Your task to perform on an android device: Go to settings Image 0: 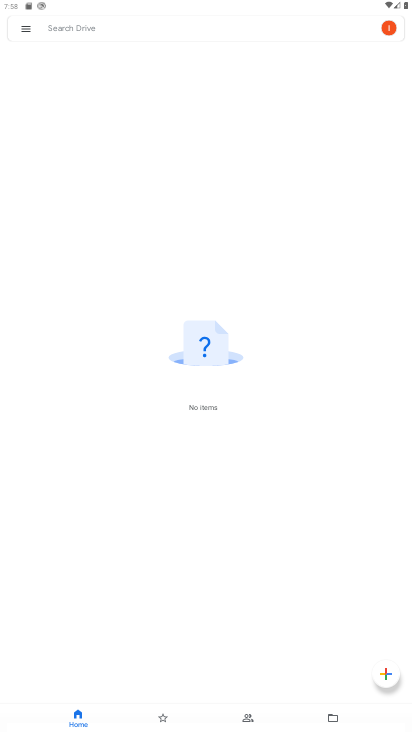
Step 0: press home button
Your task to perform on an android device: Go to settings Image 1: 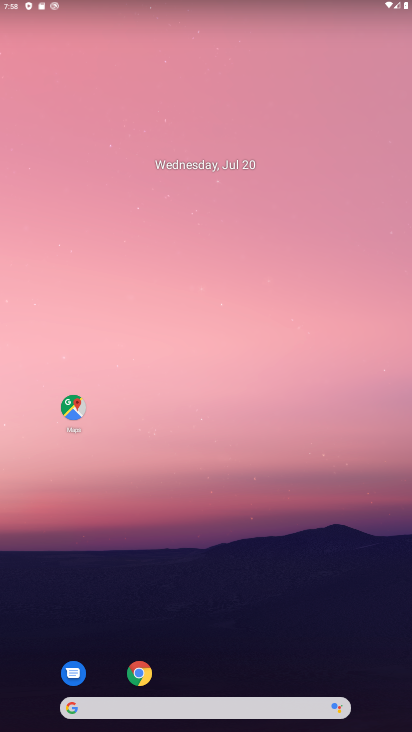
Step 1: drag from (181, 655) to (206, 170)
Your task to perform on an android device: Go to settings Image 2: 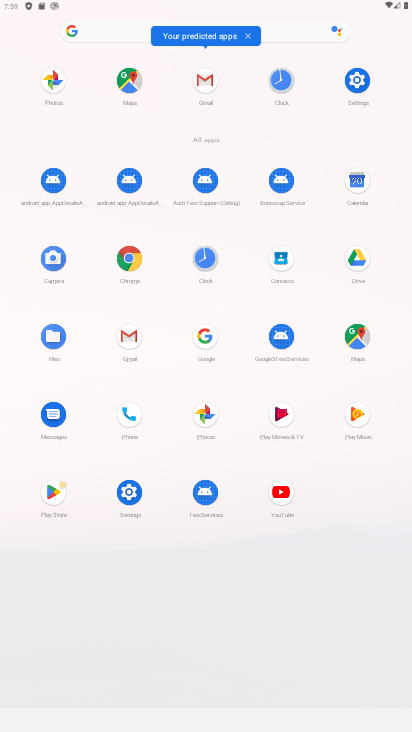
Step 2: click (121, 494)
Your task to perform on an android device: Go to settings Image 3: 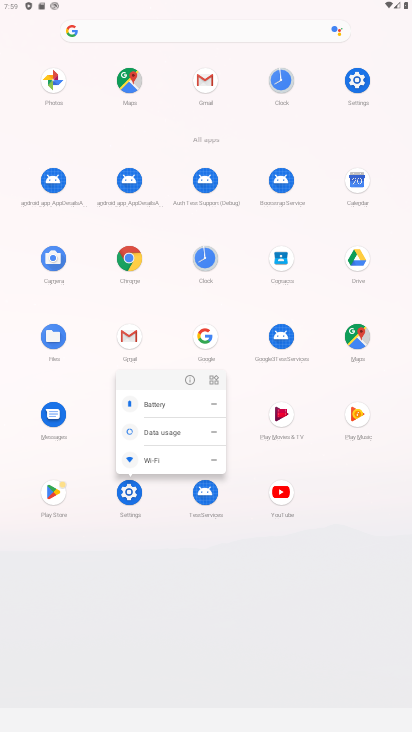
Step 3: click (187, 377)
Your task to perform on an android device: Go to settings Image 4: 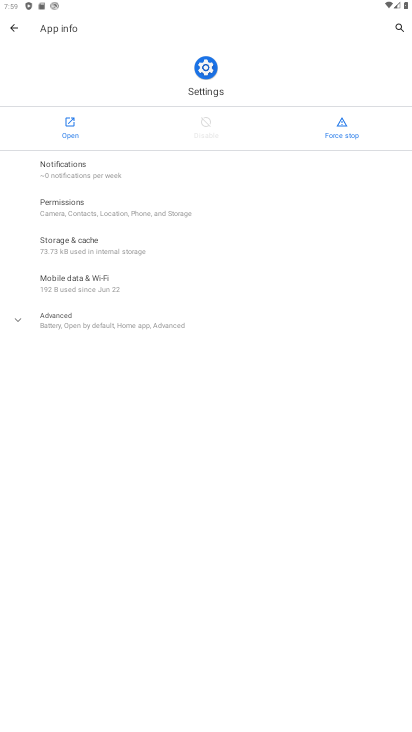
Step 4: click (74, 118)
Your task to perform on an android device: Go to settings Image 5: 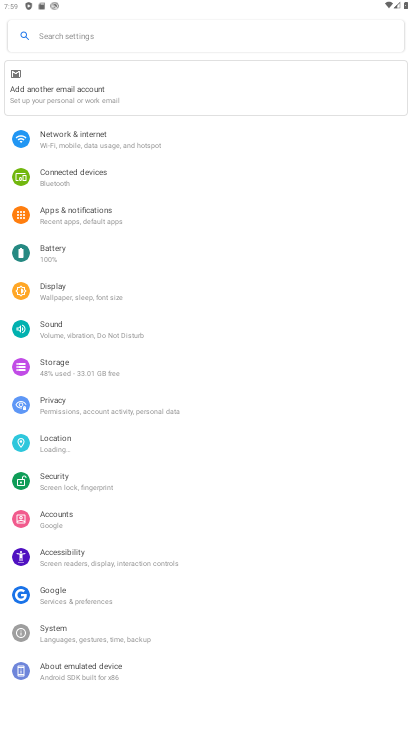
Step 5: task complete